Your task to perform on an android device: Set the phone to "Do not disturb". Image 0: 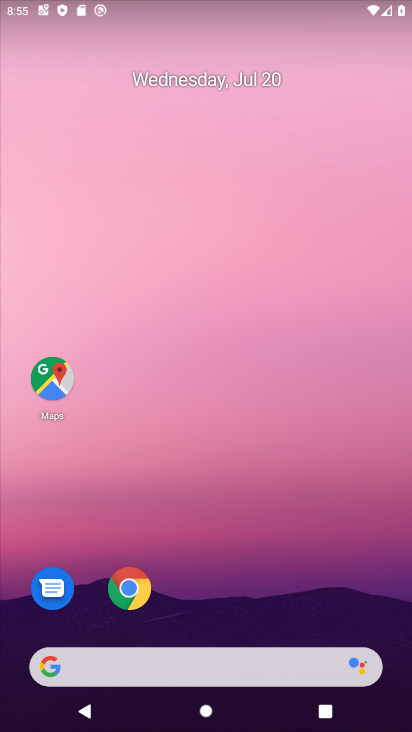
Step 0: click (64, 362)
Your task to perform on an android device: Set the phone to "Do not disturb". Image 1: 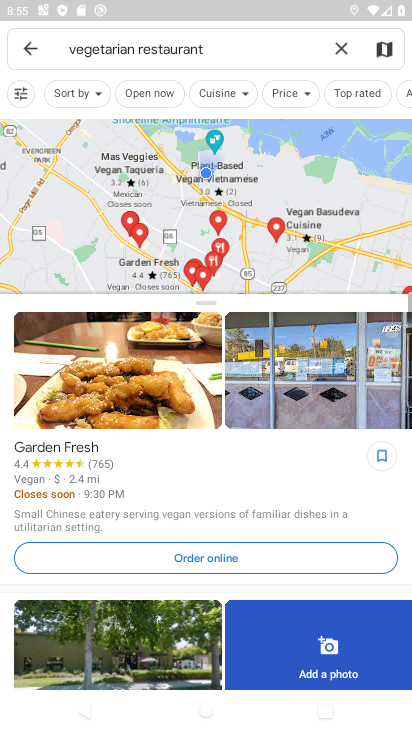
Step 1: click (356, 56)
Your task to perform on an android device: Set the phone to "Do not disturb". Image 2: 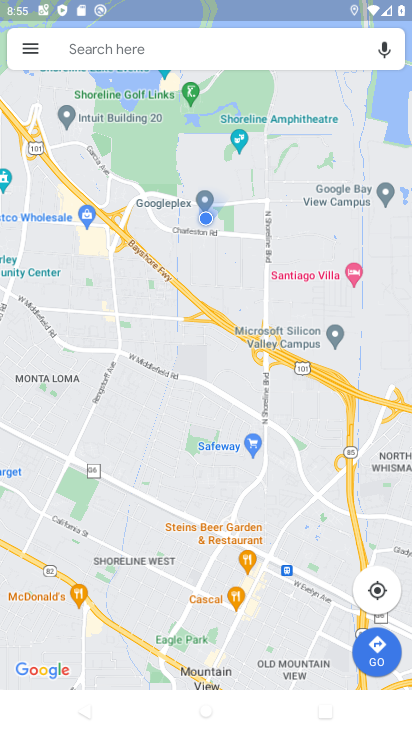
Step 2: drag from (230, 166) to (165, 410)
Your task to perform on an android device: Set the phone to "Do not disturb". Image 3: 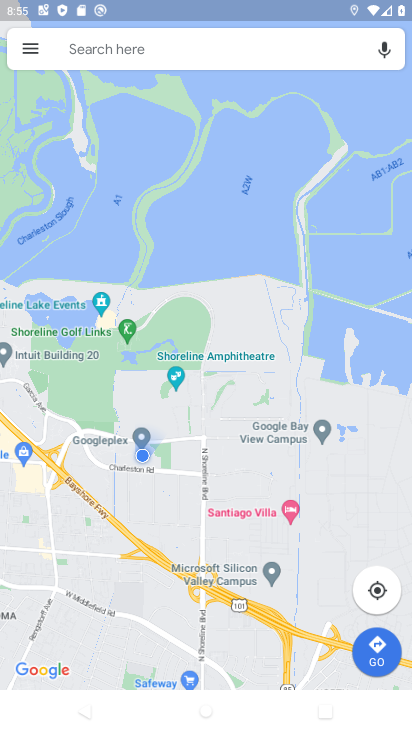
Step 3: drag from (201, 14) to (193, 550)
Your task to perform on an android device: Set the phone to "Do not disturb". Image 4: 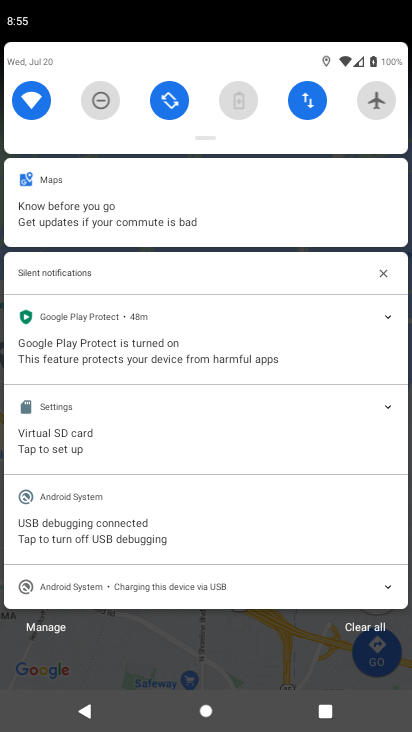
Step 4: click (99, 112)
Your task to perform on an android device: Set the phone to "Do not disturb". Image 5: 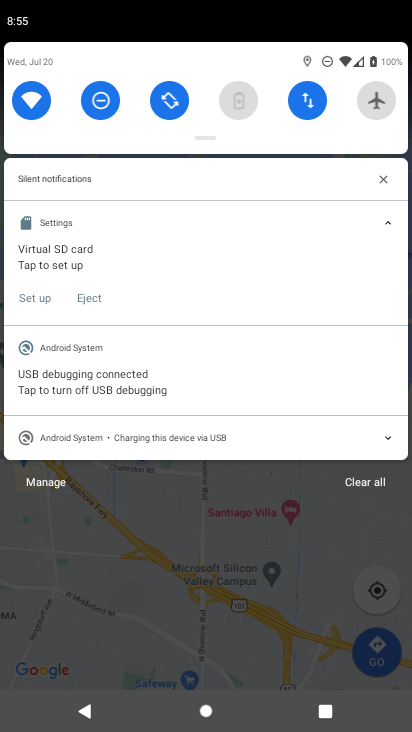
Step 5: task complete